Your task to perform on an android device: Open Yahoo.com Image 0: 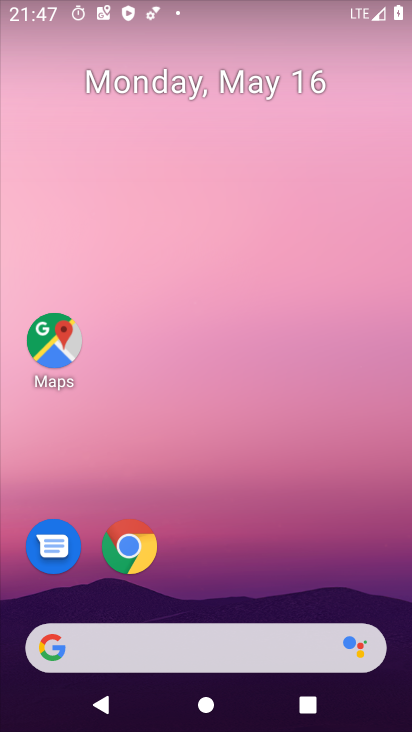
Step 0: drag from (271, 666) to (233, 346)
Your task to perform on an android device: Open Yahoo.com Image 1: 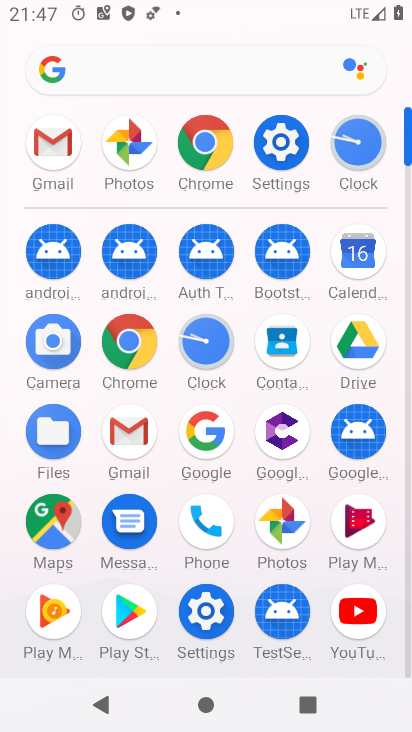
Step 1: click (210, 156)
Your task to perform on an android device: Open Yahoo.com Image 2: 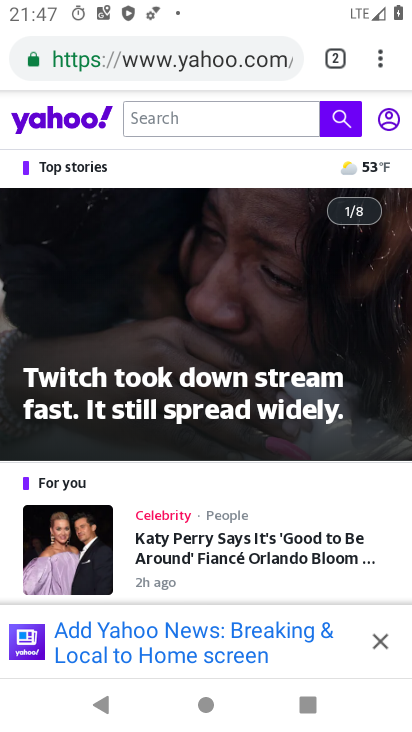
Step 2: task complete